Your task to perform on an android device: open app "Adobe Express: Graphic Design" (install if not already installed) and enter user name: "deliveries@gmail.com" and password: "regimentation" Image 0: 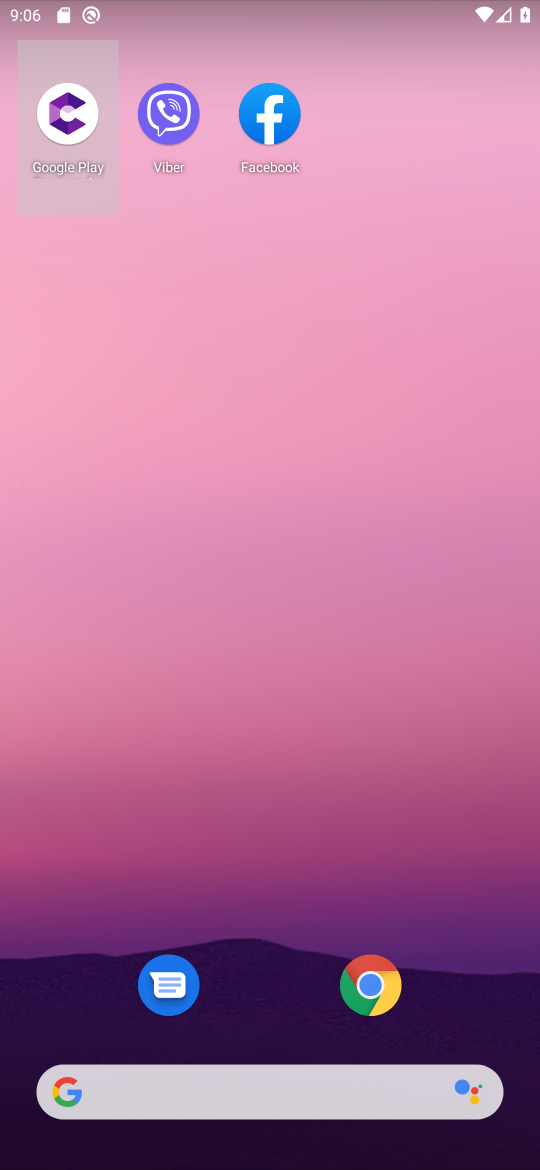
Step 0: drag from (278, 985) to (258, 95)
Your task to perform on an android device: open app "Adobe Express: Graphic Design" (install if not already installed) and enter user name: "deliveries@gmail.com" and password: "regimentation" Image 1: 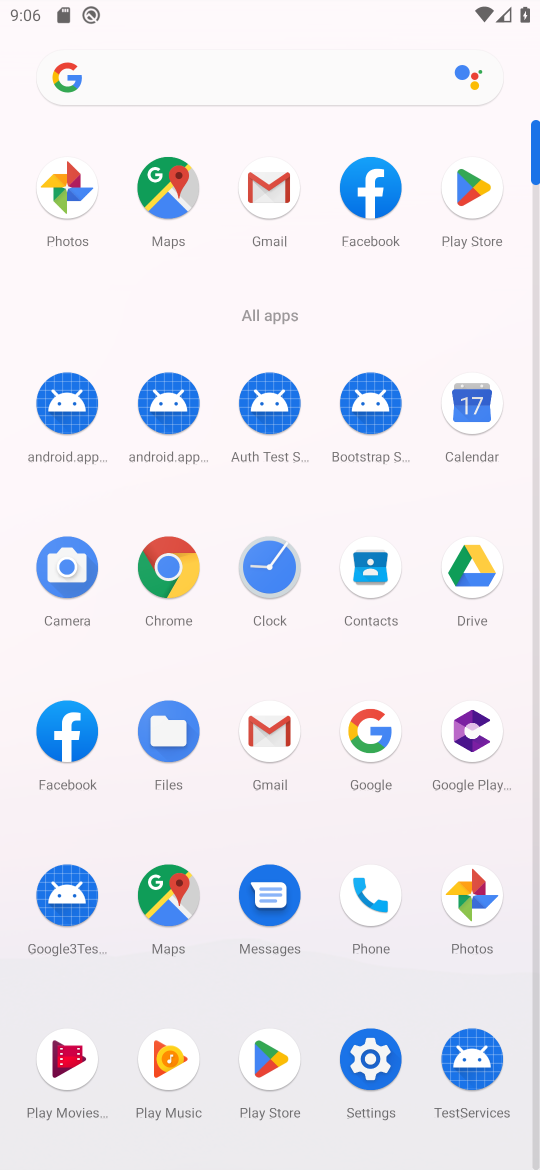
Step 1: click (476, 213)
Your task to perform on an android device: open app "Adobe Express: Graphic Design" (install if not already installed) and enter user name: "deliveries@gmail.com" and password: "regimentation" Image 2: 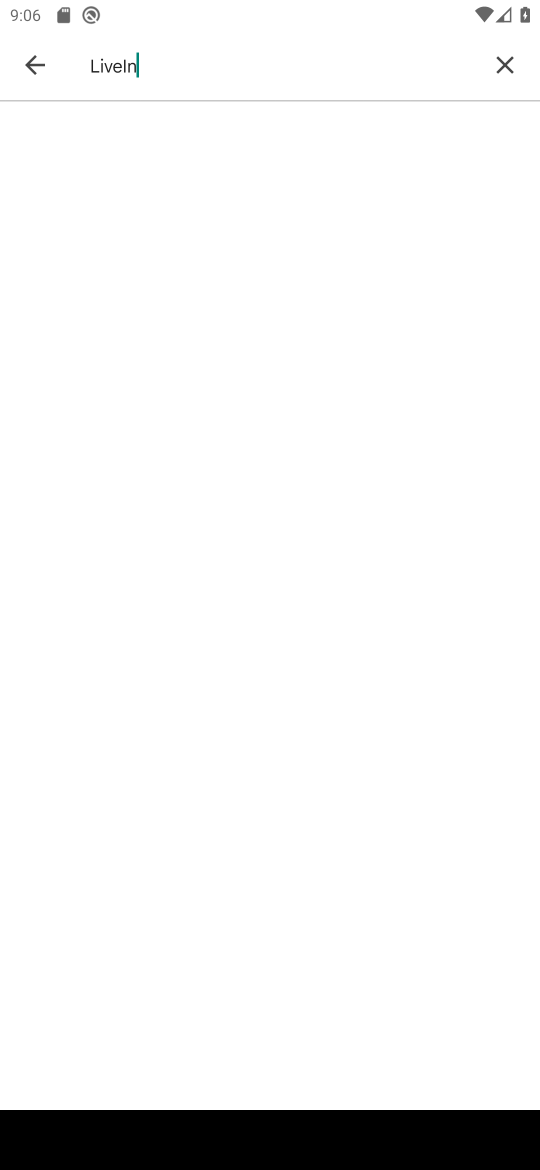
Step 2: click (21, 62)
Your task to perform on an android device: open app "Adobe Express: Graphic Design" (install if not already installed) and enter user name: "deliveries@gmail.com" and password: "regimentation" Image 3: 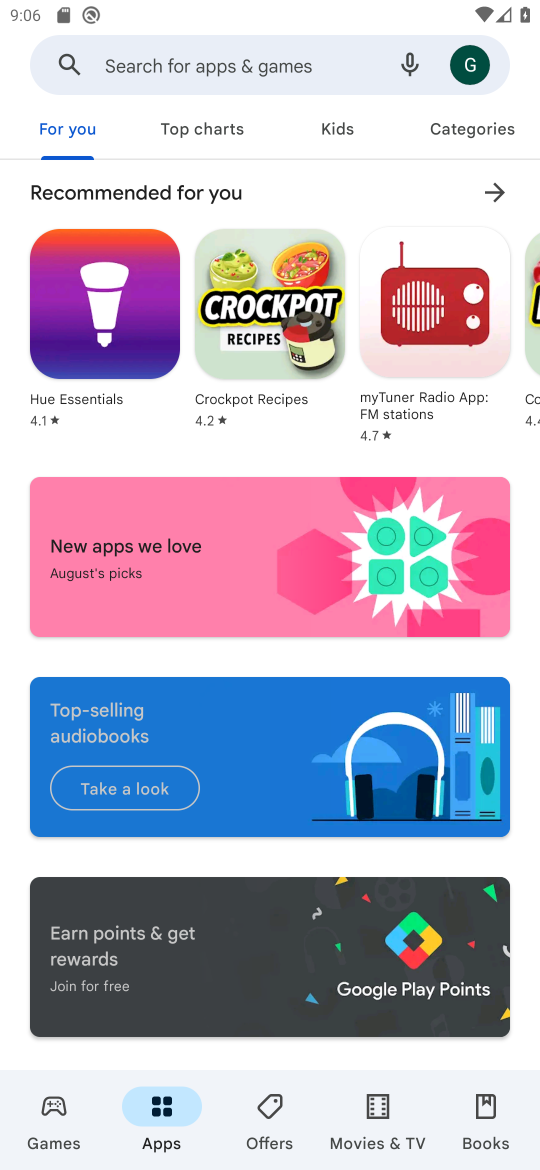
Step 3: click (242, 74)
Your task to perform on an android device: open app "Adobe Express: Graphic Design" (install if not already installed) and enter user name: "deliveries@gmail.com" and password: "regimentation" Image 4: 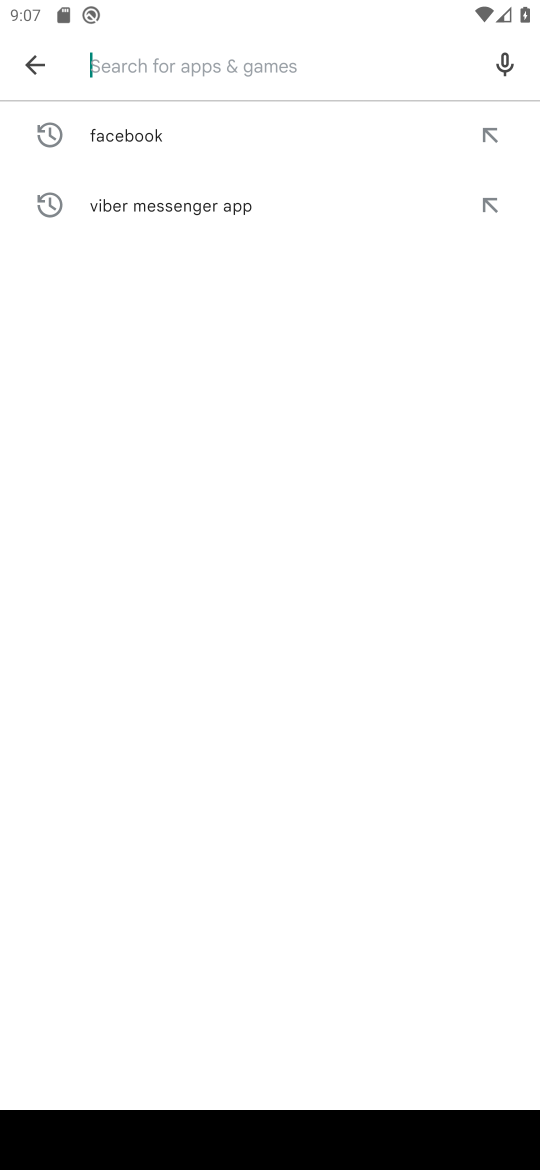
Step 4: type "Adobe Express: Graphic Design"
Your task to perform on an android device: open app "Adobe Express: Graphic Design" (install if not already installed) and enter user name: "deliveries@gmail.com" and password: "regimentation" Image 5: 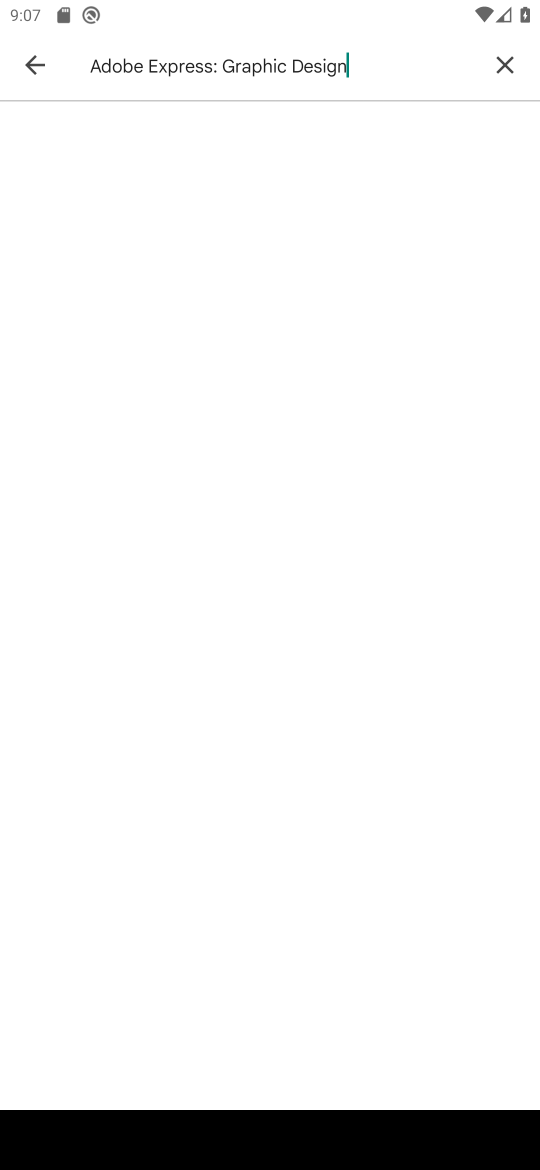
Step 5: click (46, 70)
Your task to perform on an android device: open app "Adobe Express: Graphic Design" (install if not already installed) and enter user name: "deliveries@gmail.com" and password: "regimentation" Image 6: 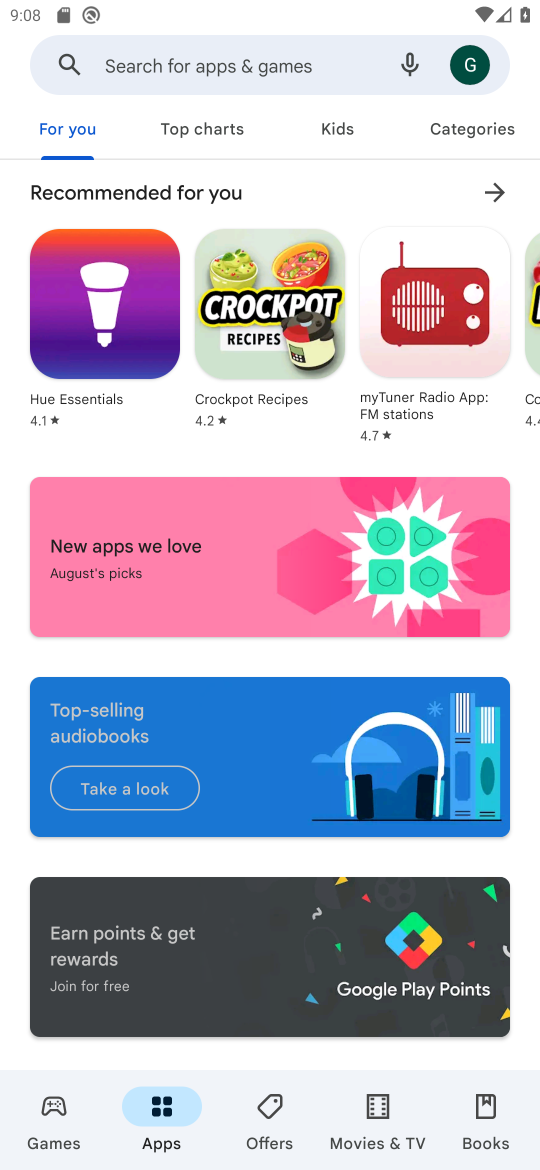
Step 6: click (198, 75)
Your task to perform on an android device: open app "Adobe Express: Graphic Design" (install if not already installed) and enter user name: "deliveries@gmail.com" and password: "regimentation" Image 7: 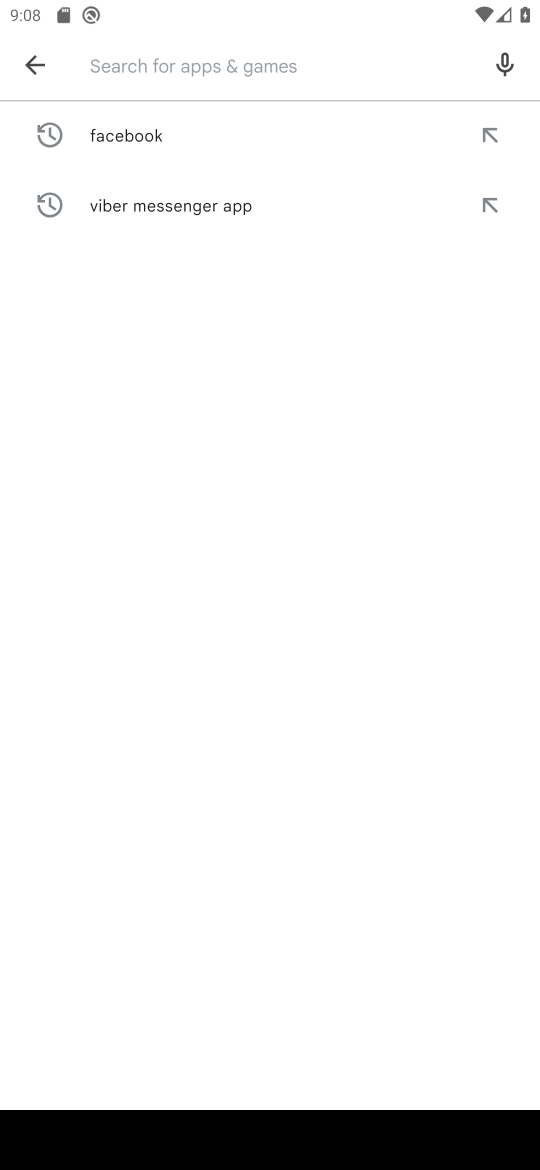
Step 7: type "Adobe Express: Graphic Design"
Your task to perform on an android device: open app "Adobe Express: Graphic Design" (install if not already installed) and enter user name: "deliveries@gmail.com" and password: "regimentation" Image 8: 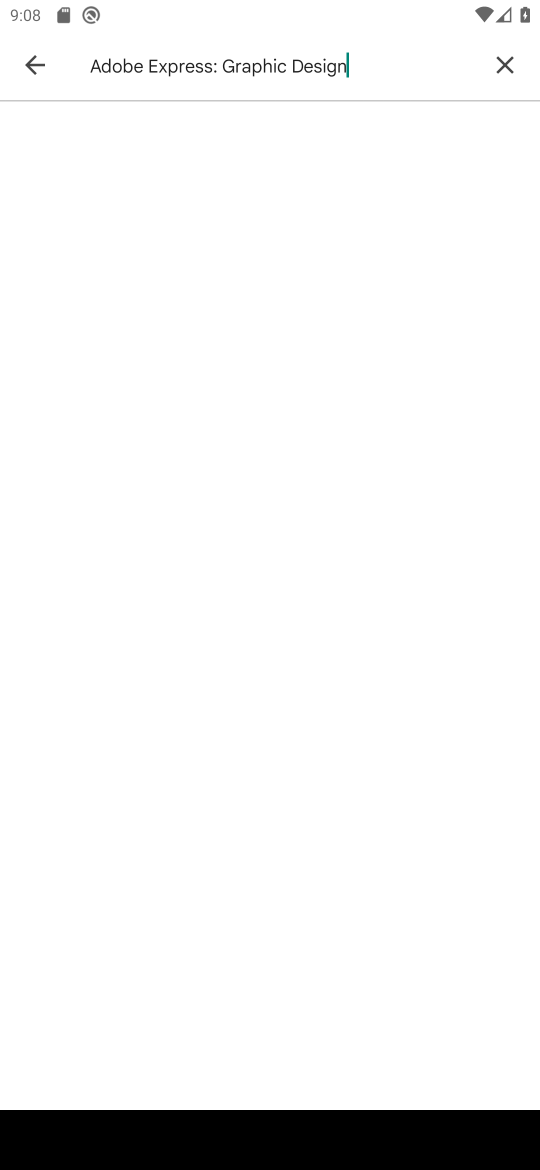
Step 8: task complete